Your task to perform on an android device: Go to Reddit.com Image 0: 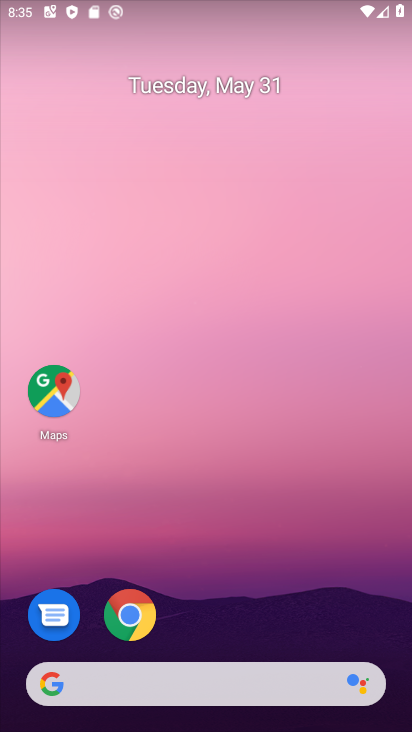
Step 0: click (129, 617)
Your task to perform on an android device: Go to Reddit.com Image 1: 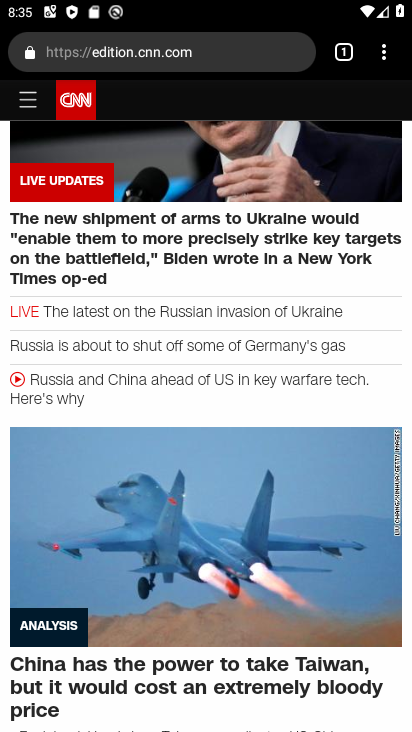
Step 1: click (271, 50)
Your task to perform on an android device: Go to Reddit.com Image 2: 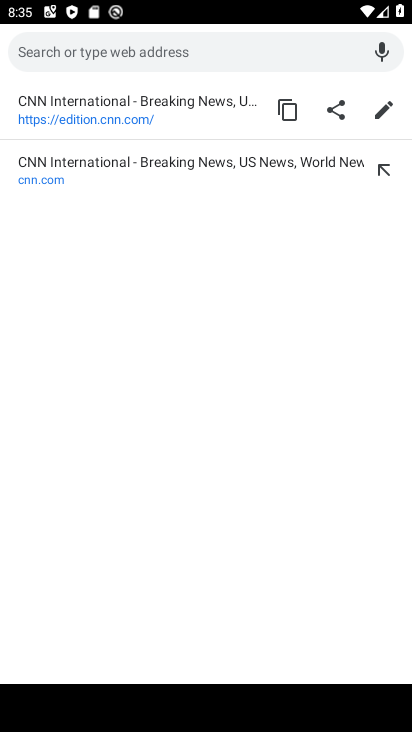
Step 2: type "reddit.com"
Your task to perform on an android device: Go to Reddit.com Image 3: 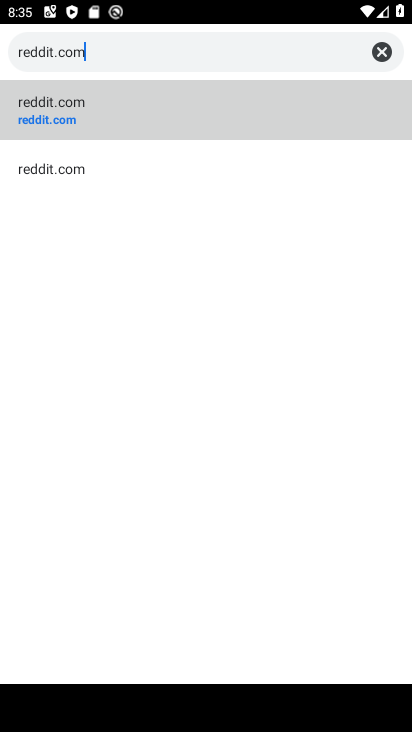
Step 3: click (80, 115)
Your task to perform on an android device: Go to Reddit.com Image 4: 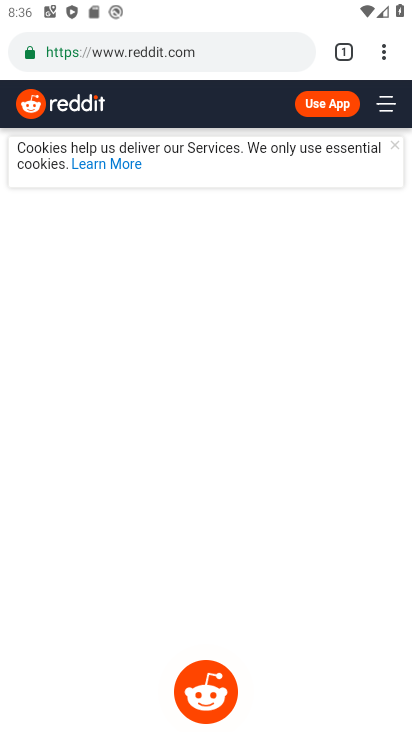
Step 4: task complete